Your task to perform on an android device: Go to Google maps Image 0: 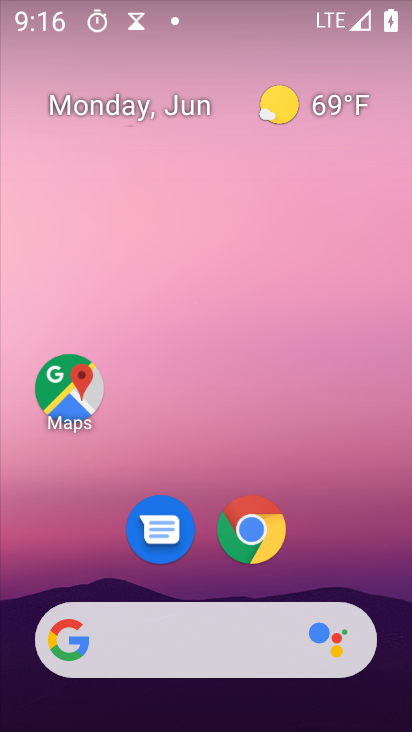
Step 0: click (58, 393)
Your task to perform on an android device: Go to Google maps Image 1: 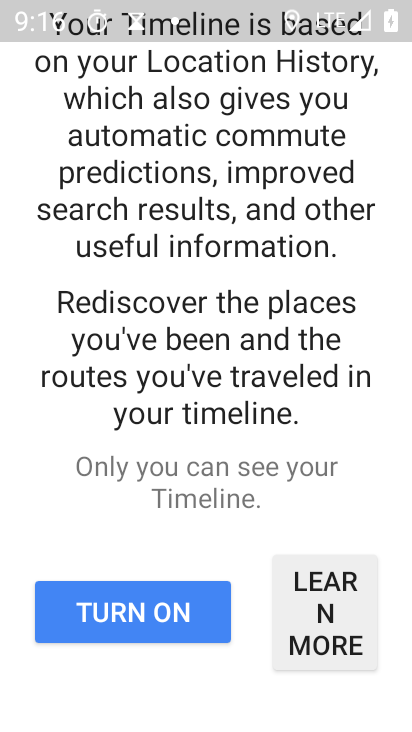
Step 1: task complete